Your task to perform on an android device: move a message to another label in the gmail app Image 0: 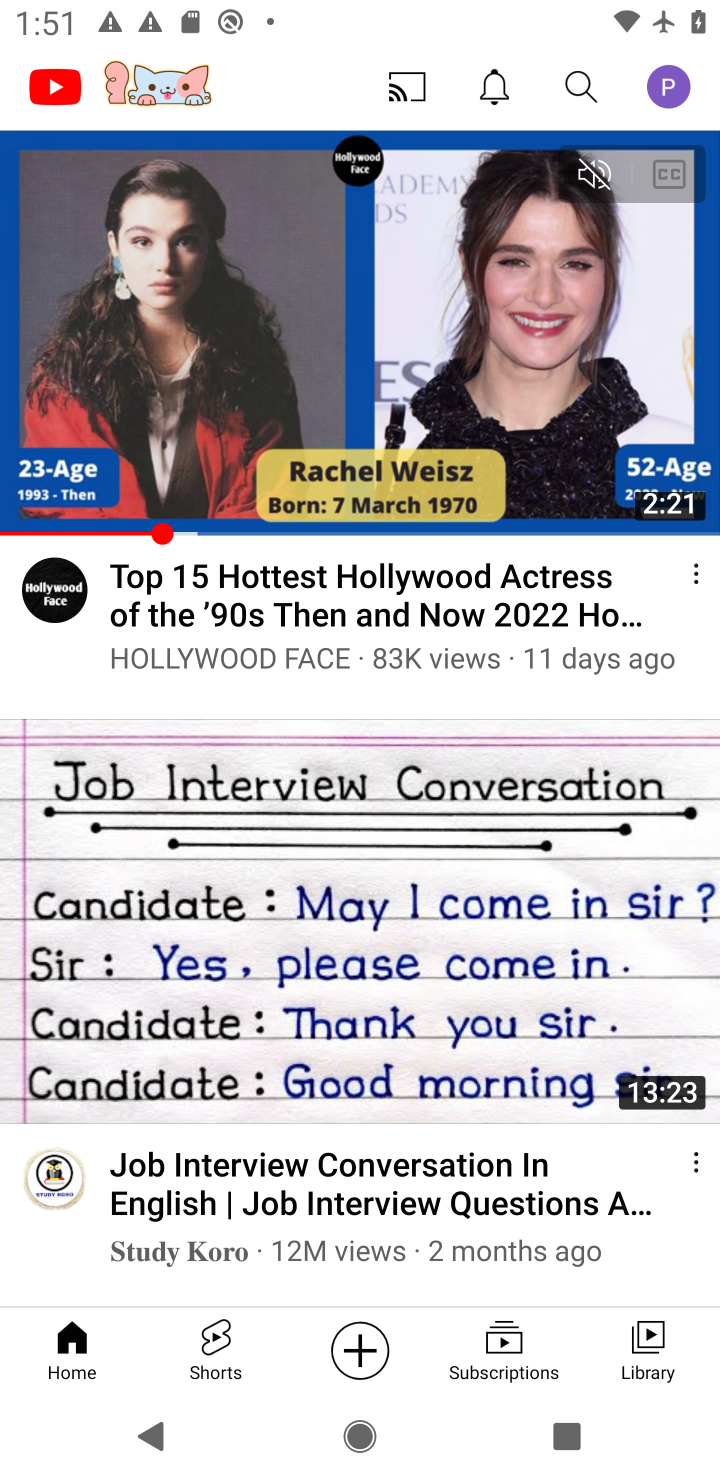
Step 0: press home button
Your task to perform on an android device: move a message to another label in the gmail app Image 1: 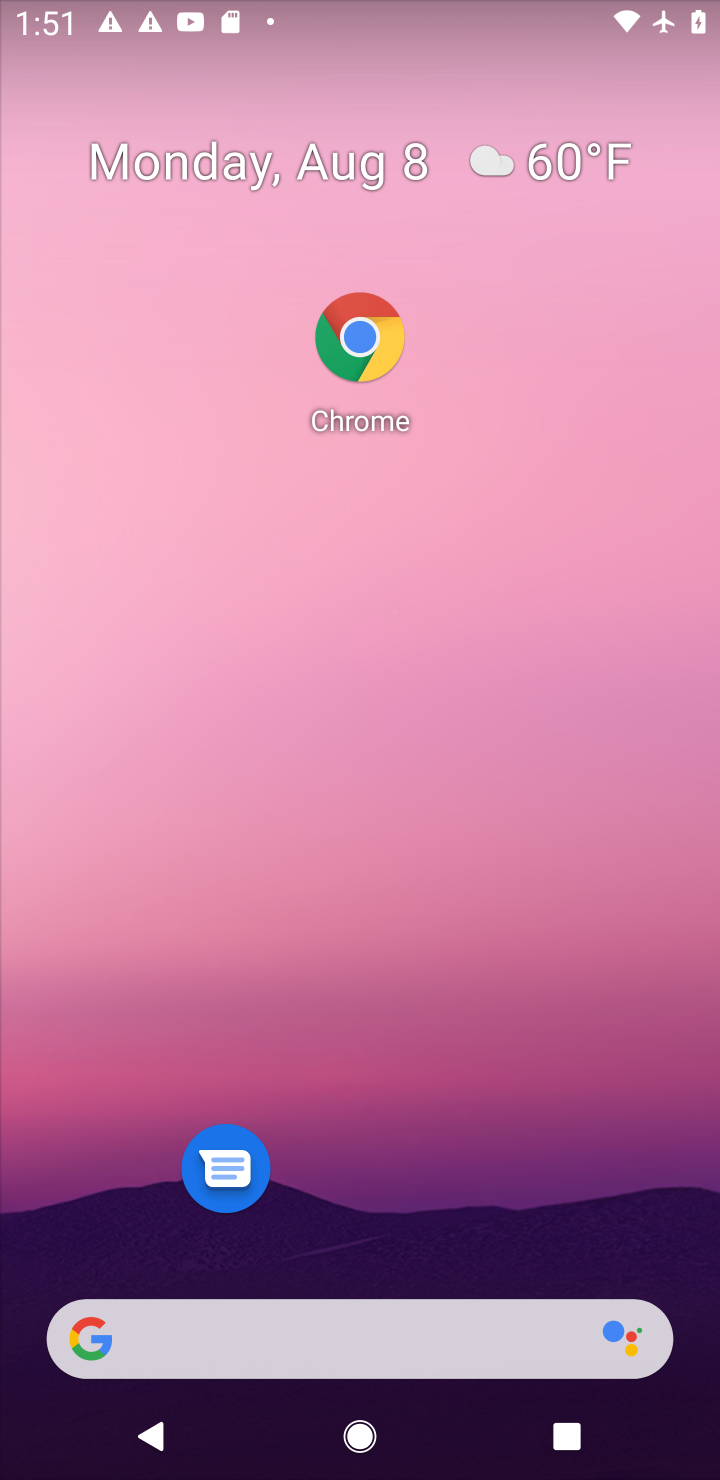
Step 1: drag from (398, 1293) to (287, 244)
Your task to perform on an android device: move a message to another label in the gmail app Image 2: 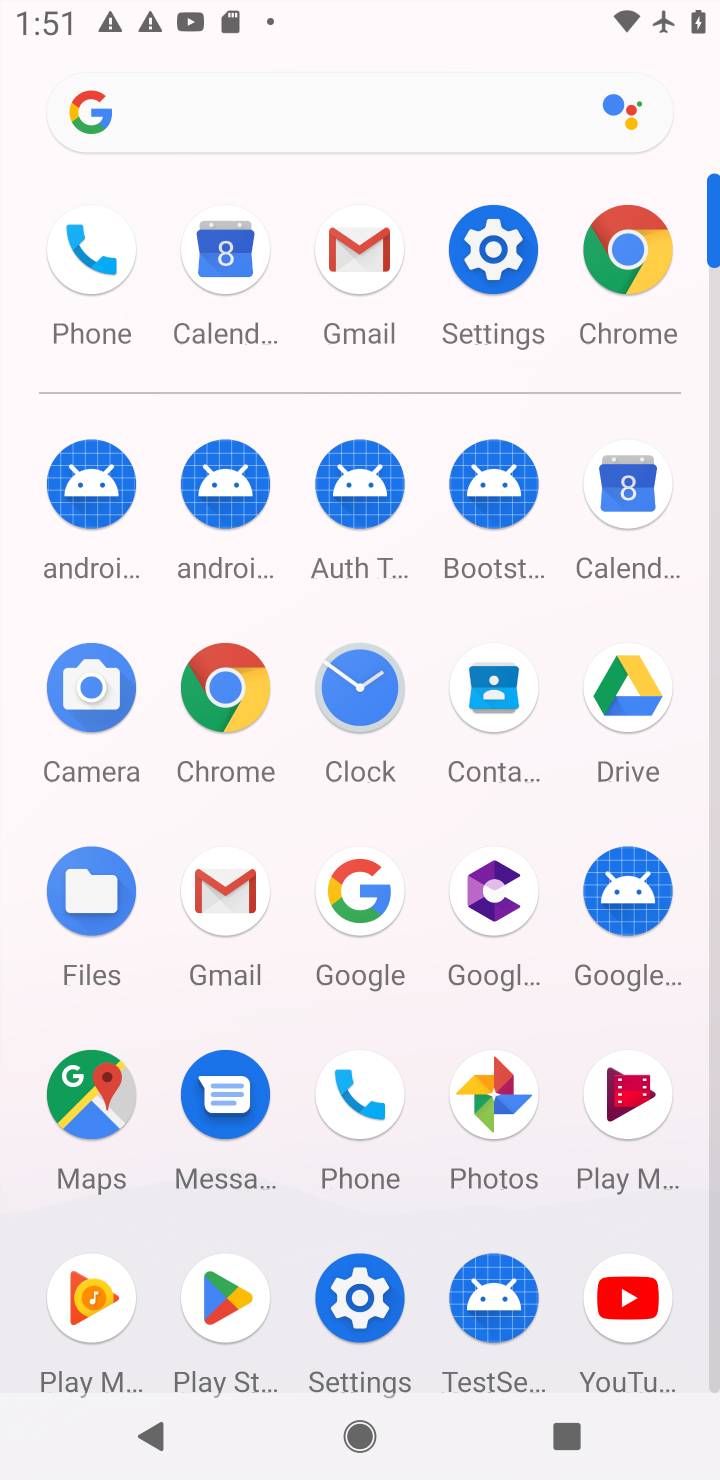
Step 2: click (257, 947)
Your task to perform on an android device: move a message to another label in the gmail app Image 3: 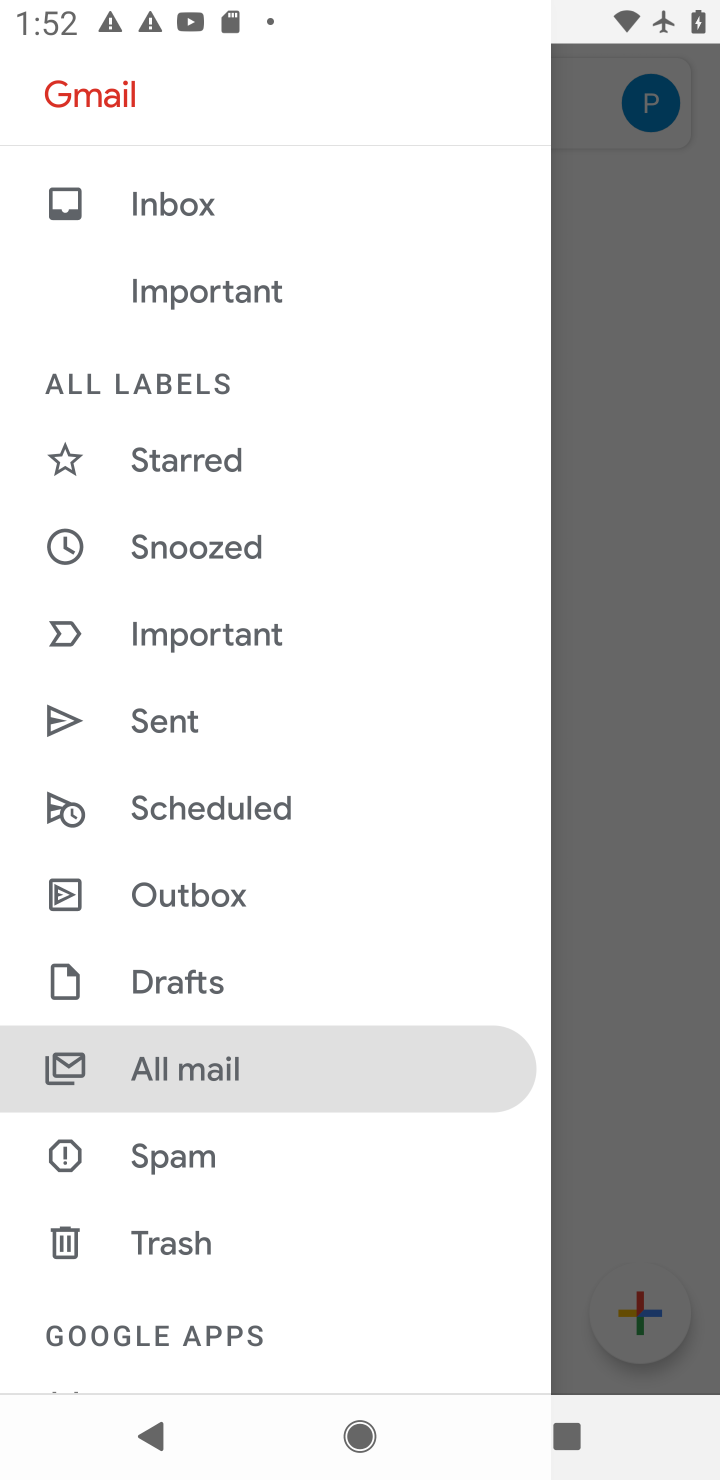
Step 3: task complete